Your task to perform on an android device: turn on wifi Image 0: 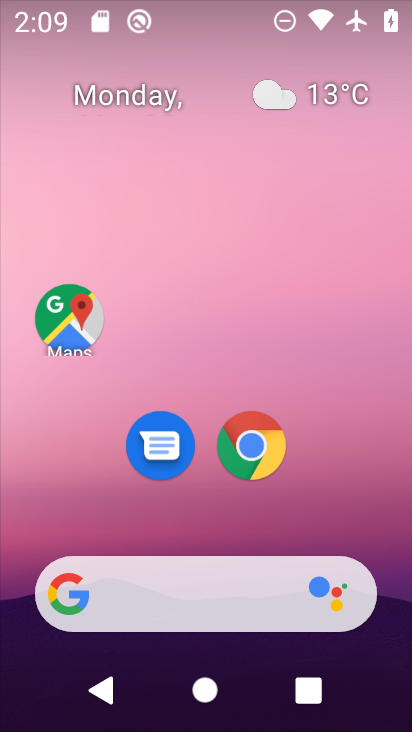
Step 0: drag from (386, 612) to (271, 19)
Your task to perform on an android device: turn on wifi Image 1: 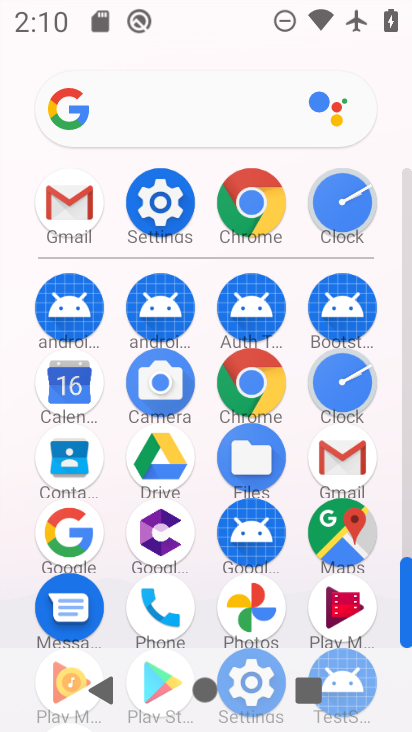
Step 1: task complete